Your task to perform on an android device: Go to ESPN.com Image 0: 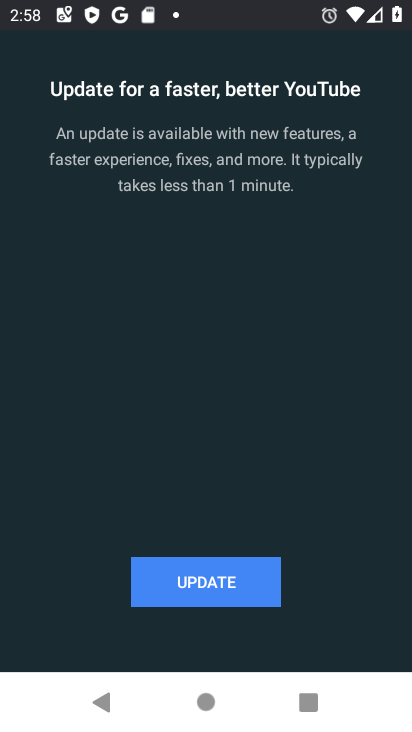
Step 0: press home button
Your task to perform on an android device: Go to ESPN.com Image 1: 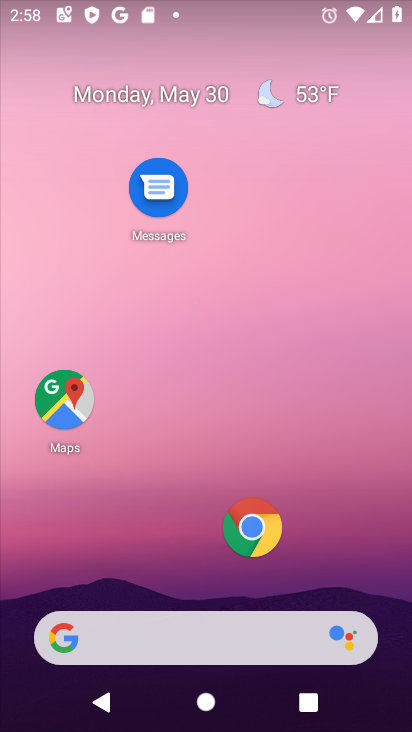
Step 1: drag from (200, 565) to (310, 8)
Your task to perform on an android device: Go to ESPN.com Image 2: 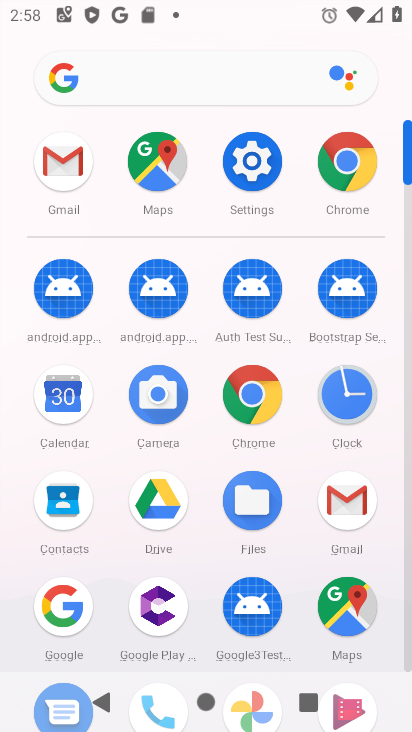
Step 2: click (237, 408)
Your task to perform on an android device: Go to ESPN.com Image 3: 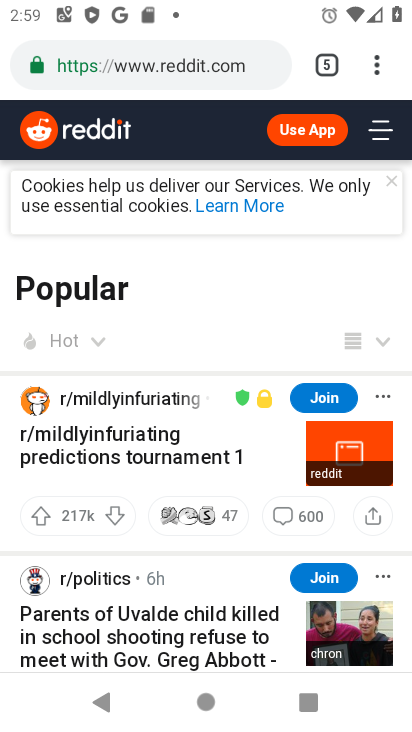
Step 3: click (331, 69)
Your task to perform on an android device: Go to ESPN.com Image 4: 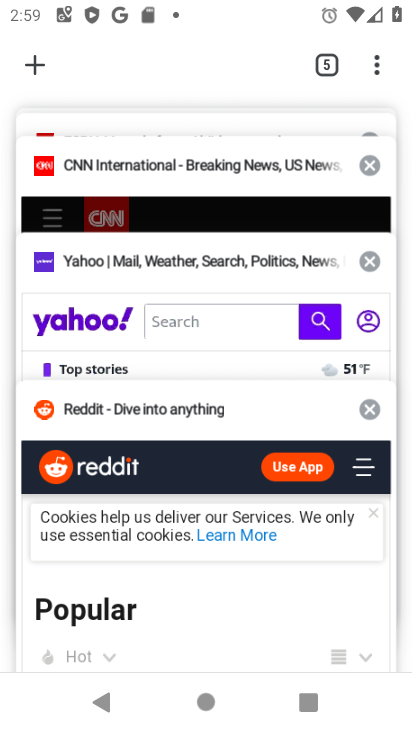
Step 4: drag from (209, 221) to (225, 589)
Your task to perform on an android device: Go to ESPN.com Image 5: 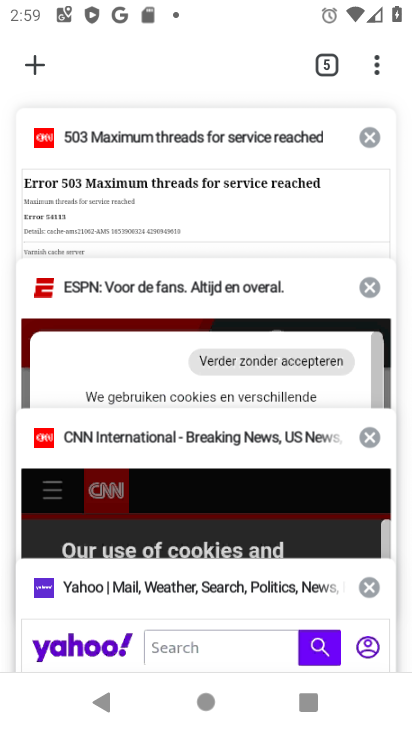
Step 5: click (149, 345)
Your task to perform on an android device: Go to ESPN.com Image 6: 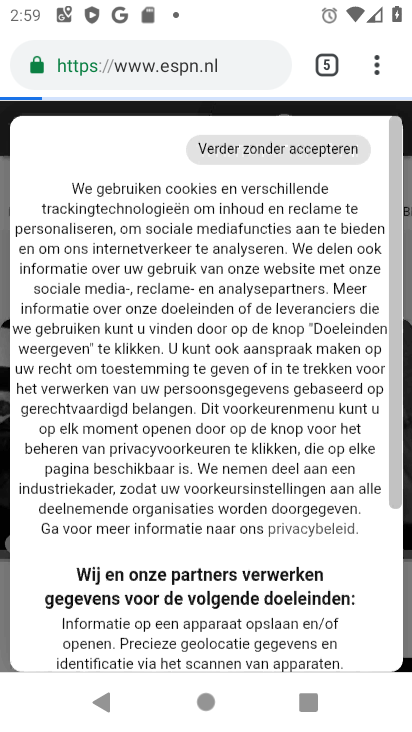
Step 6: task complete